Your task to perform on an android device: turn off smart reply in the gmail app Image 0: 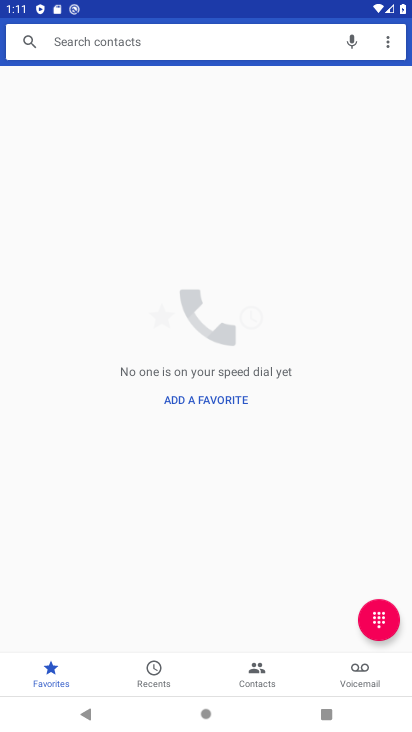
Step 0: press home button
Your task to perform on an android device: turn off smart reply in the gmail app Image 1: 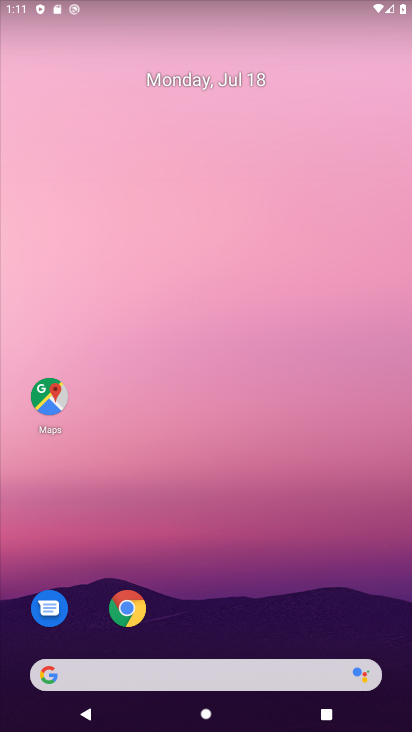
Step 1: drag from (225, 675) to (225, 140)
Your task to perform on an android device: turn off smart reply in the gmail app Image 2: 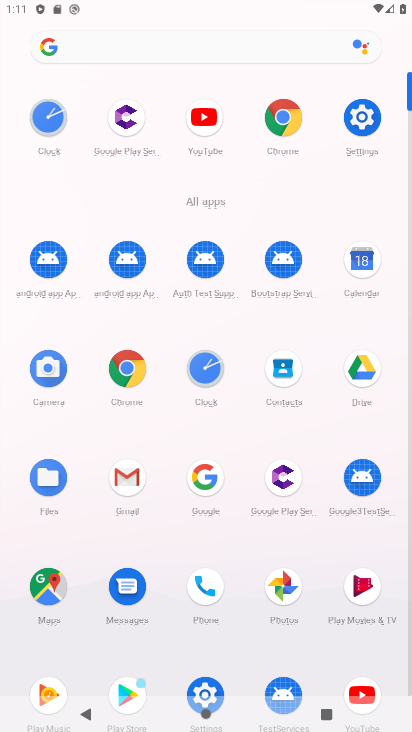
Step 2: click (124, 482)
Your task to perform on an android device: turn off smart reply in the gmail app Image 3: 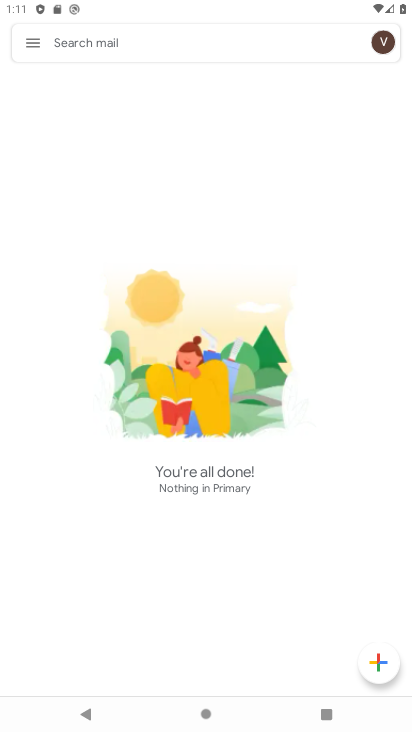
Step 3: click (31, 42)
Your task to perform on an android device: turn off smart reply in the gmail app Image 4: 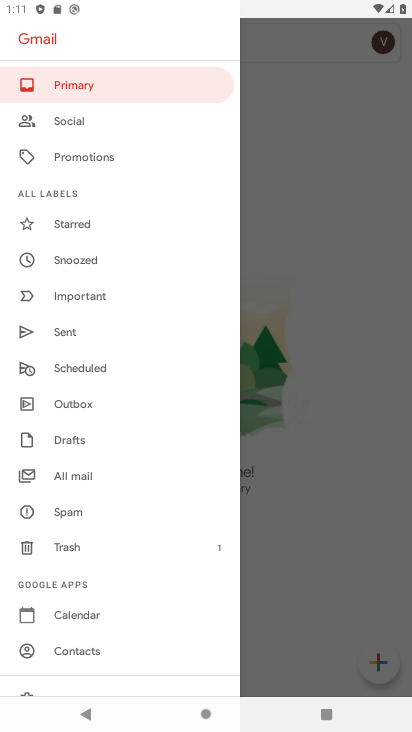
Step 4: drag from (78, 649) to (78, 392)
Your task to perform on an android device: turn off smart reply in the gmail app Image 5: 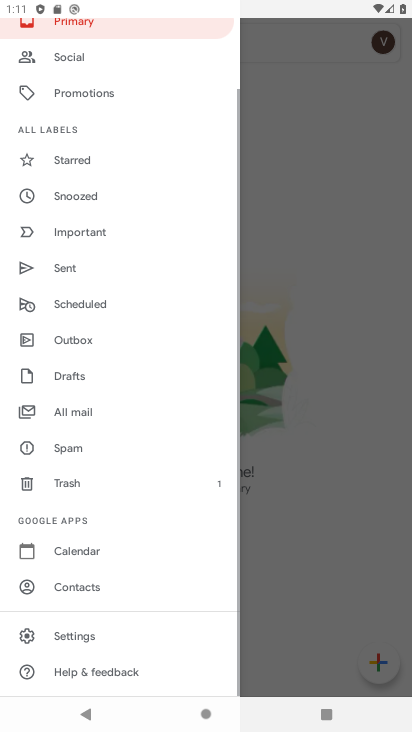
Step 5: click (61, 639)
Your task to perform on an android device: turn off smart reply in the gmail app Image 6: 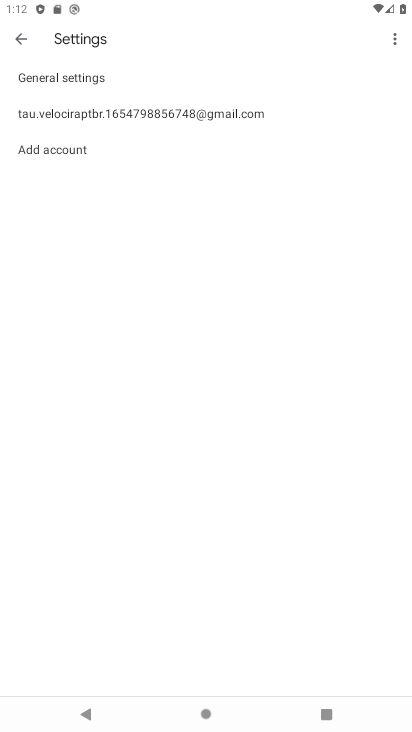
Step 6: click (94, 115)
Your task to perform on an android device: turn off smart reply in the gmail app Image 7: 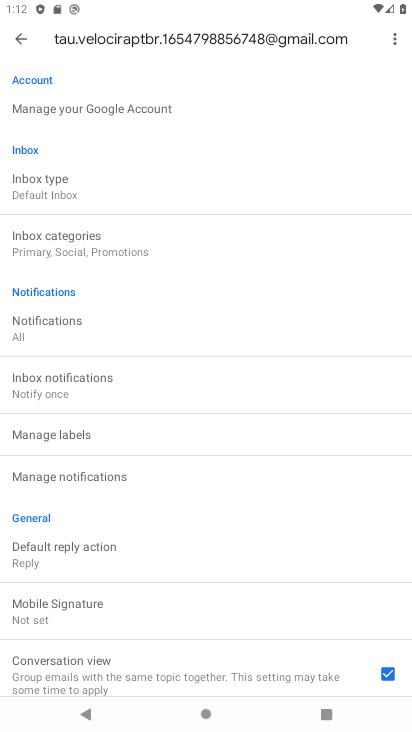
Step 7: drag from (84, 681) to (60, 375)
Your task to perform on an android device: turn off smart reply in the gmail app Image 8: 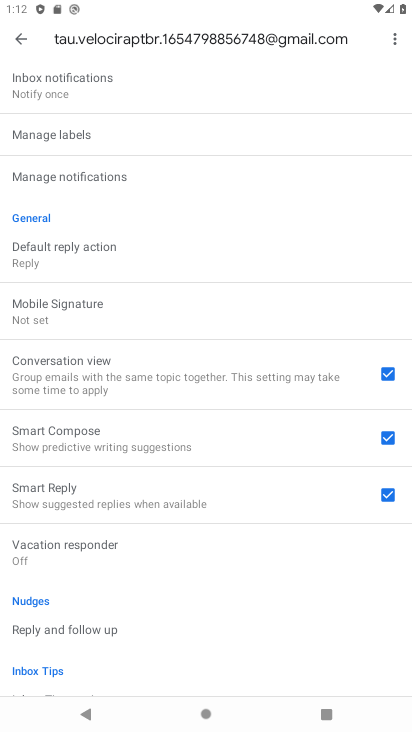
Step 8: click (389, 495)
Your task to perform on an android device: turn off smart reply in the gmail app Image 9: 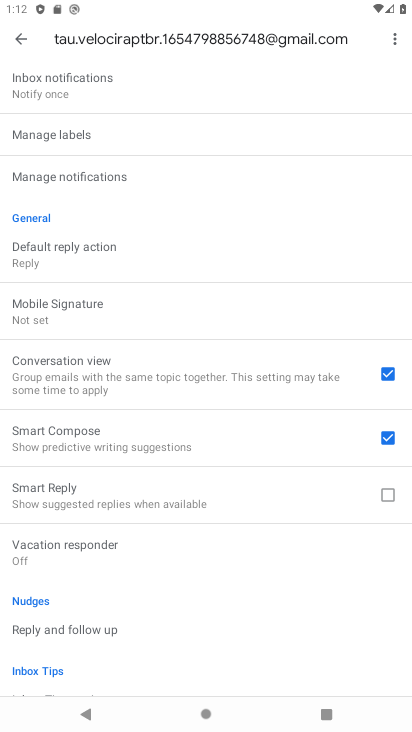
Step 9: task complete